Your task to perform on an android device: open a new tab in the chrome app Image 0: 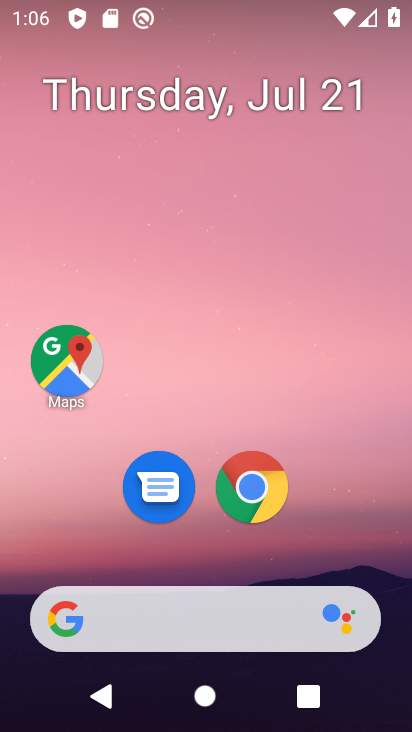
Step 0: click (263, 471)
Your task to perform on an android device: open a new tab in the chrome app Image 1: 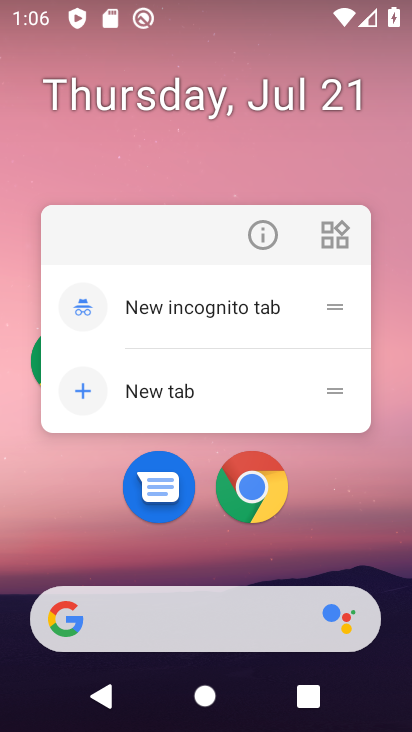
Step 1: click (256, 471)
Your task to perform on an android device: open a new tab in the chrome app Image 2: 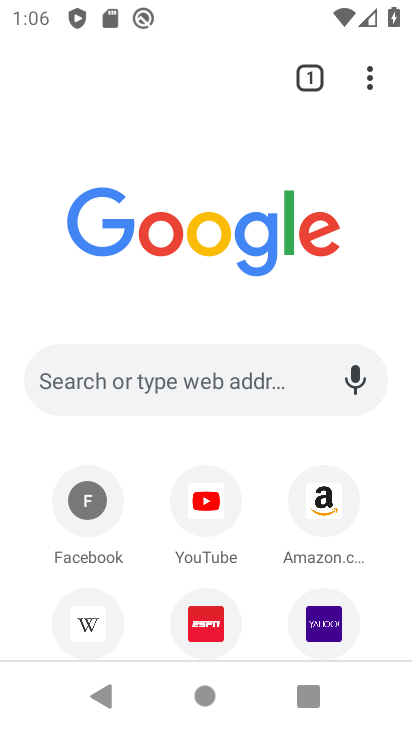
Step 2: task complete